Your task to perform on an android device: Go to Google Image 0: 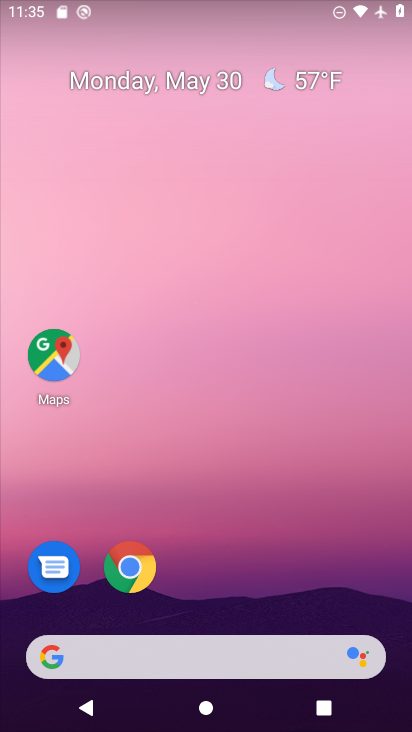
Step 0: drag from (212, 540) to (212, 164)
Your task to perform on an android device: Go to Google Image 1: 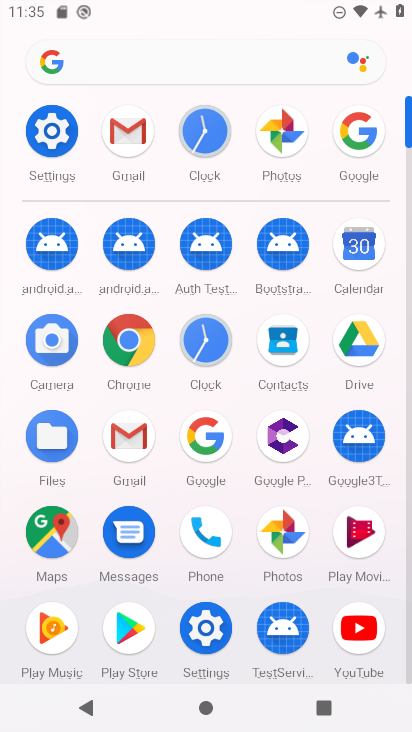
Step 1: click (361, 155)
Your task to perform on an android device: Go to Google Image 2: 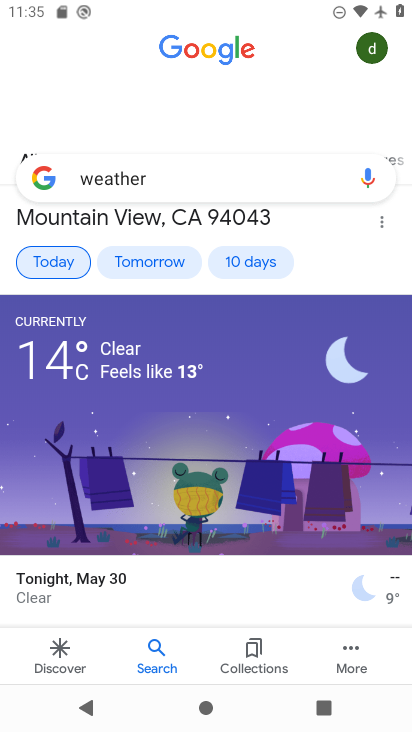
Step 2: task complete